Your task to perform on an android device: Open Youtube and go to the subscriptions tab Image 0: 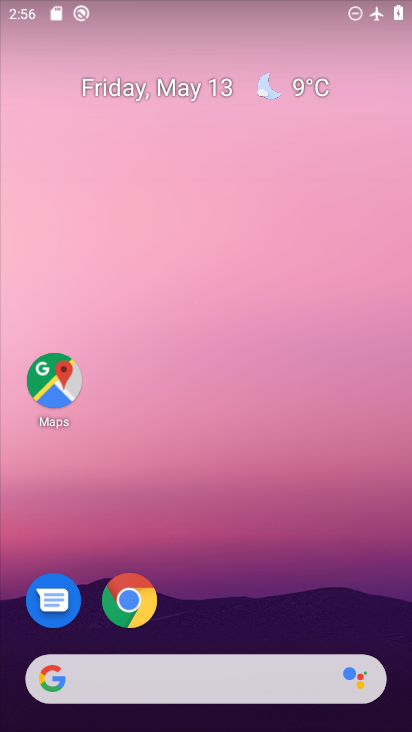
Step 0: drag from (202, 652) to (273, 257)
Your task to perform on an android device: Open Youtube and go to the subscriptions tab Image 1: 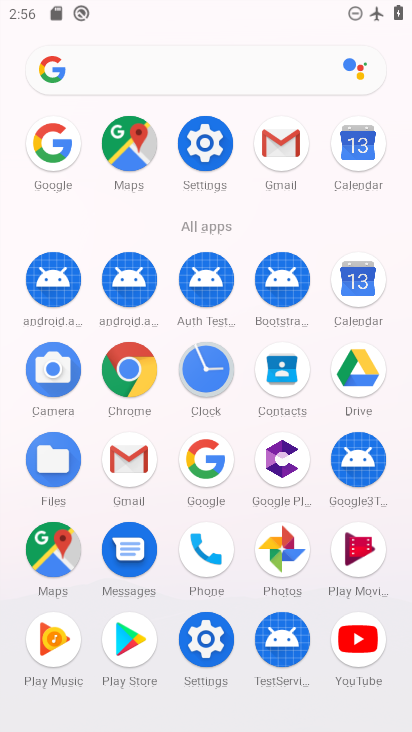
Step 1: click (350, 640)
Your task to perform on an android device: Open Youtube and go to the subscriptions tab Image 2: 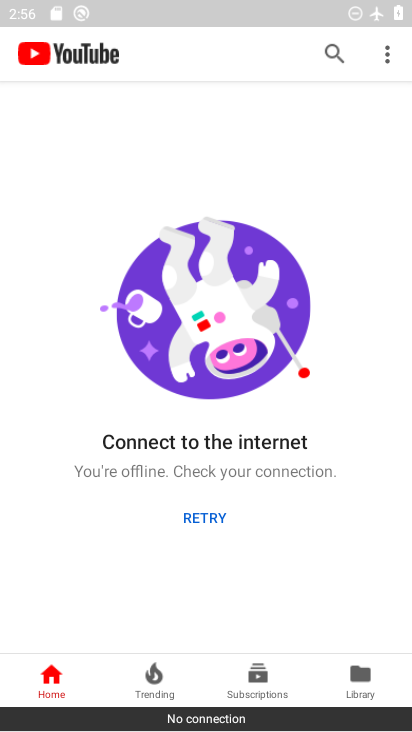
Step 2: click (272, 684)
Your task to perform on an android device: Open Youtube and go to the subscriptions tab Image 3: 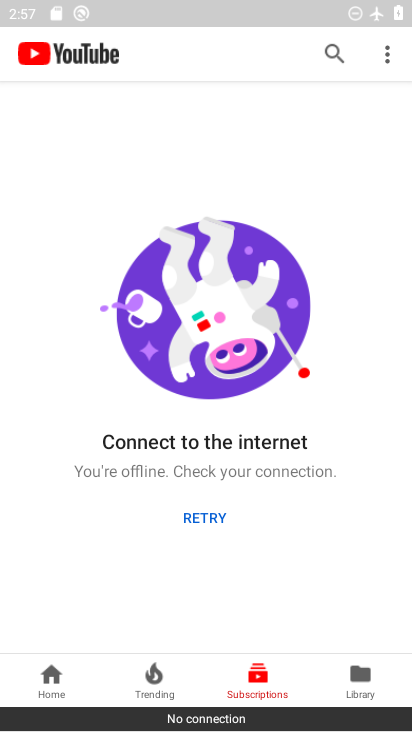
Step 3: task complete